Your task to perform on an android device: turn off smart reply in the gmail app Image 0: 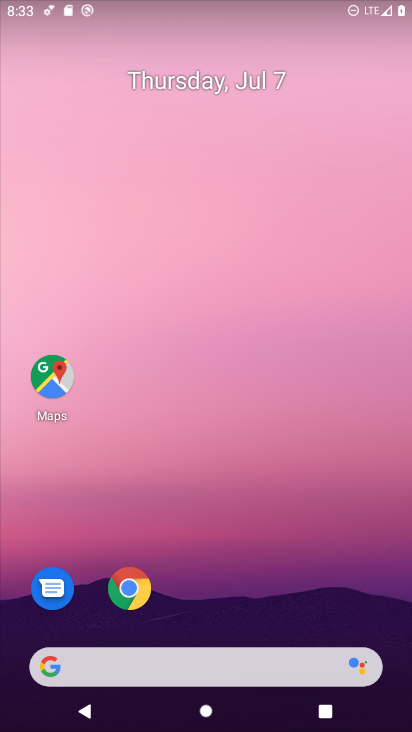
Step 0: drag from (323, 587) to (294, 214)
Your task to perform on an android device: turn off smart reply in the gmail app Image 1: 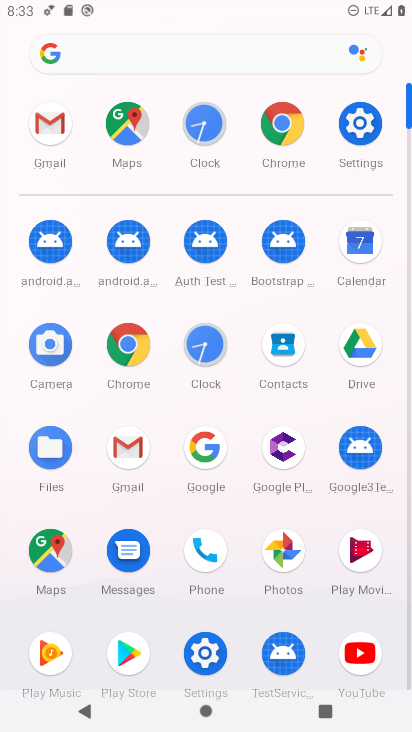
Step 1: click (114, 440)
Your task to perform on an android device: turn off smart reply in the gmail app Image 2: 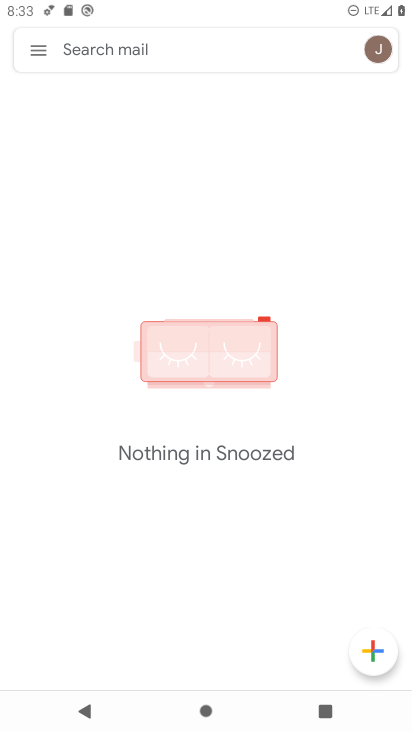
Step 2: click (30, 35)
Your task to perform on an android device: turn off smart reply in the gmail app Image 3: 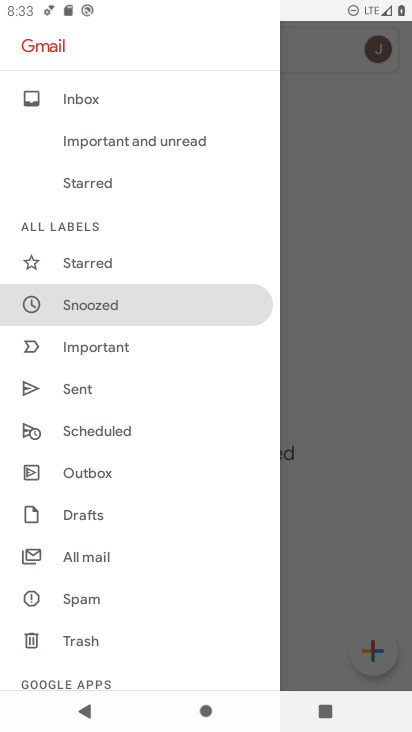
Step 3: drag from (124, 619) to (160, 344)
Your task to perform on an android device: turn off smart reply in the gmail app Image 4: 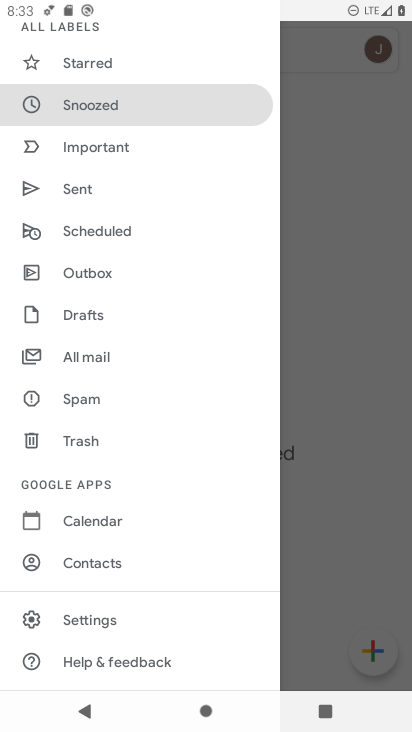
Step 4: click (137, 610)
Your task to perform on an android device: turn off smart reply in the gmail app Image 5: 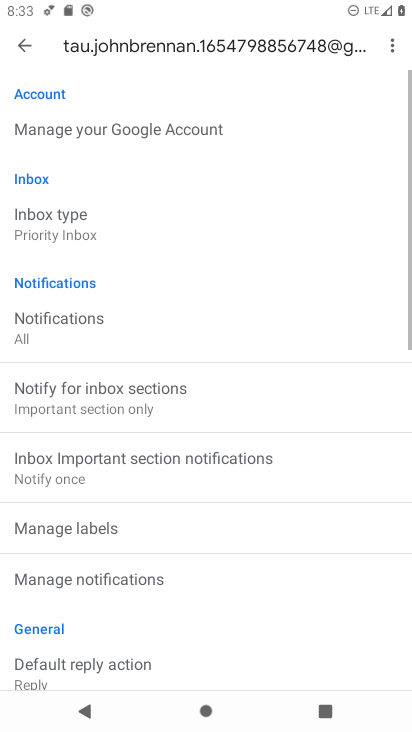
Step 5: drag from (189, 654) to (145, 253)
Your task to perform on an android device: turn off smart reply in the gmail app Image 6: 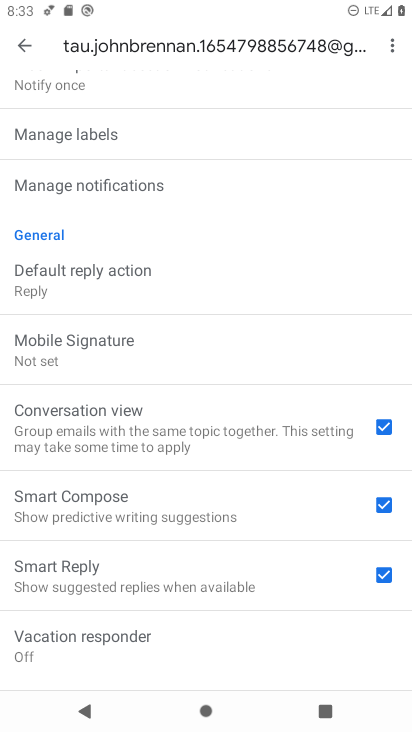
Step 6: click (382, 572)
Your task to perform on an android device: turn off smart reply in the gmail app Image 7: 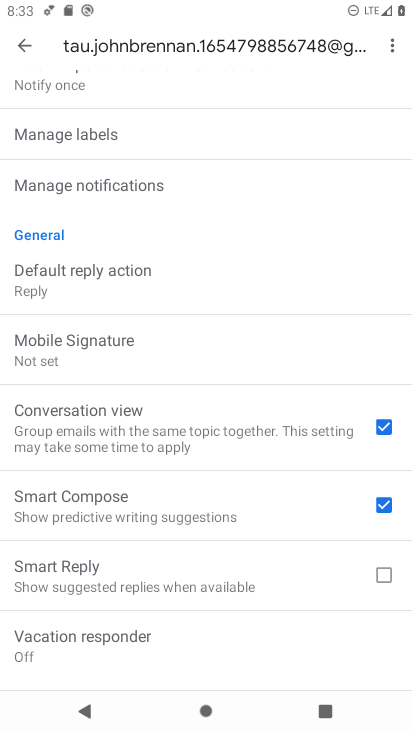
Step 7: task complete